Your task to perform on an android device: Open Google Chrome and open the bookmarks view Image 0: 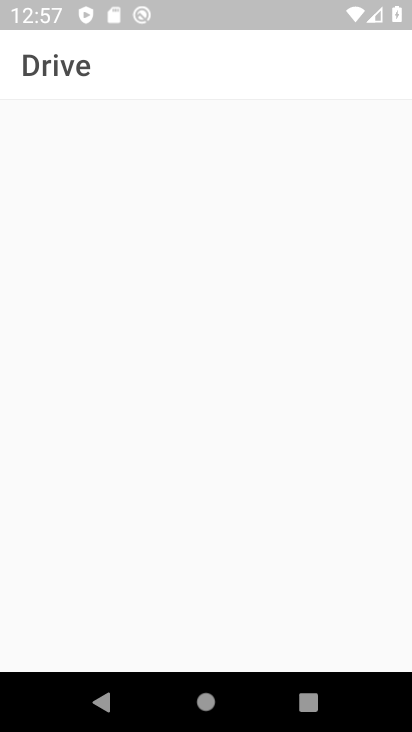
Step 0: press back button
Your task to perform on an android device: Open Google Chrome and open the bookmarks view Image 1: 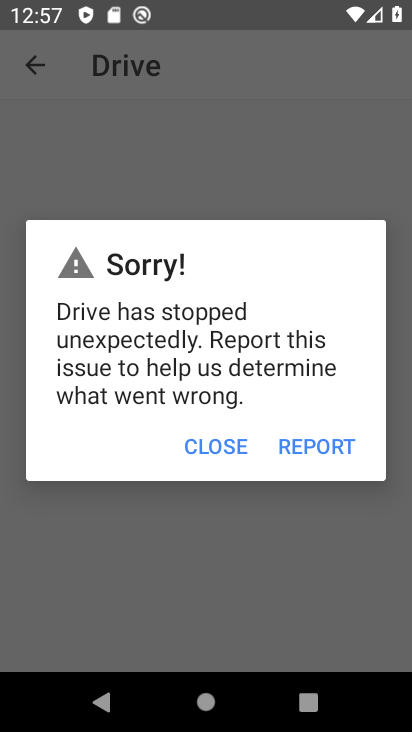
Step 1: click (217, 445)
Your task to perform on an android device: Open Google Chrome and open the bookmarks view Image 2: 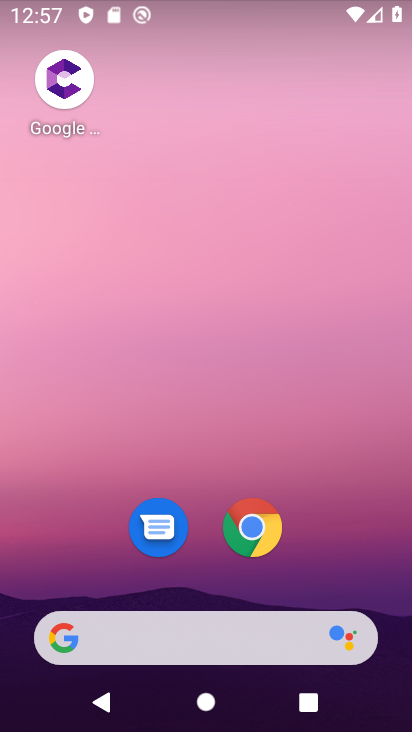
Step 2: drag from (271, 630) to (230, 229)
Your task to perform on an android device: Open Google Chrome and open the bookmarks view Image 3: 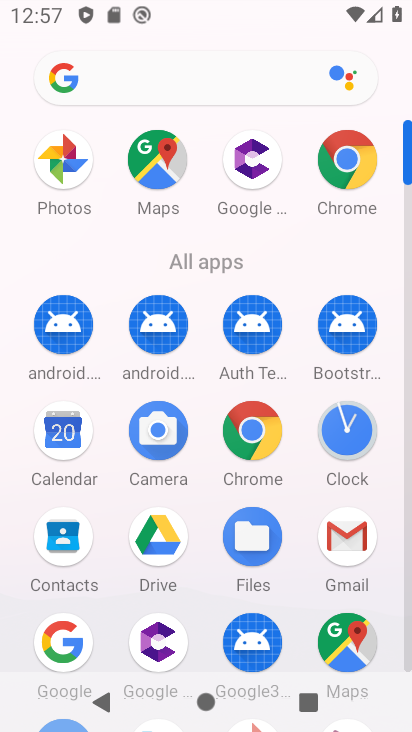
Step 3: click (342, 152)
Your task to perform on an android device: Open Google Chrome and open the bookmarks view Image 4: 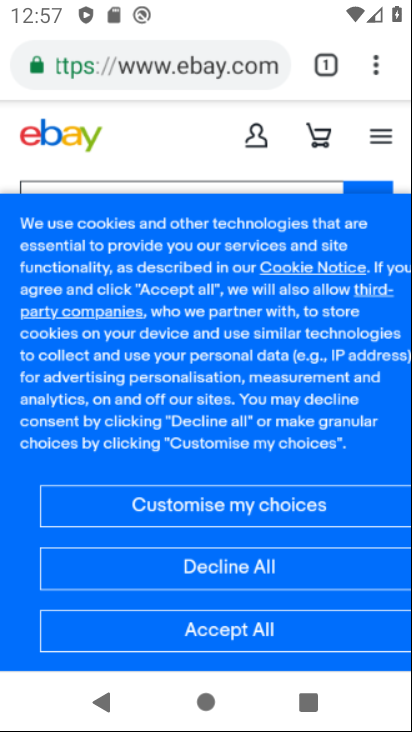
Step 4: click (340, 161)
Your task to perform on an android device: Open Google Chrome and open the bookmarks view Image 5: 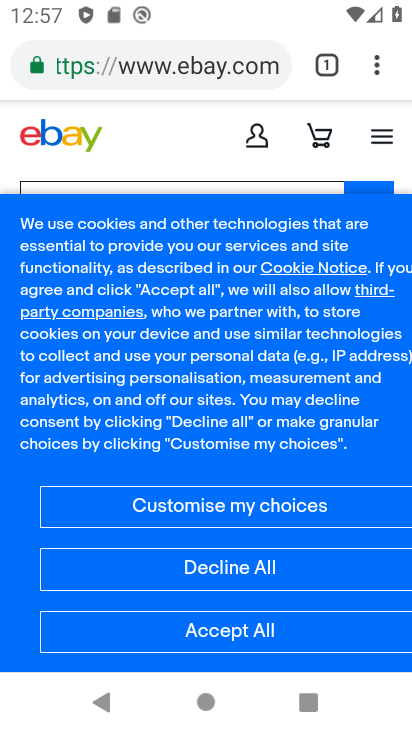
Step 5: drag from (373, 64) to (154, 237)
Your task to perform on an android device: Open Google Chrome and open the bookmarks view Image 6: 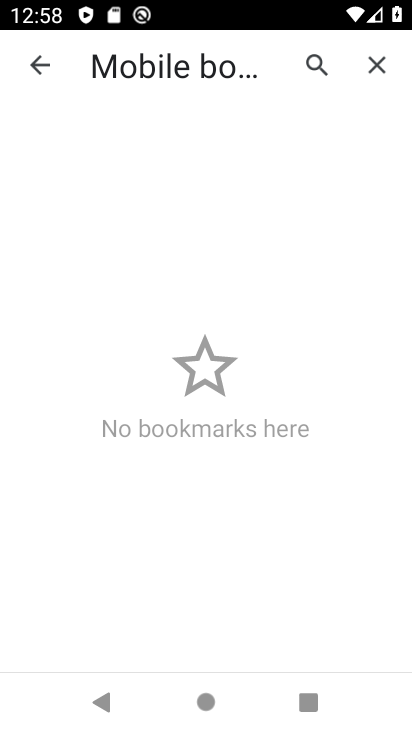
Step 6: click (155, 245)
Your task to perform on an android device: Open Google Chrome and open the bookmarks view Image 7: 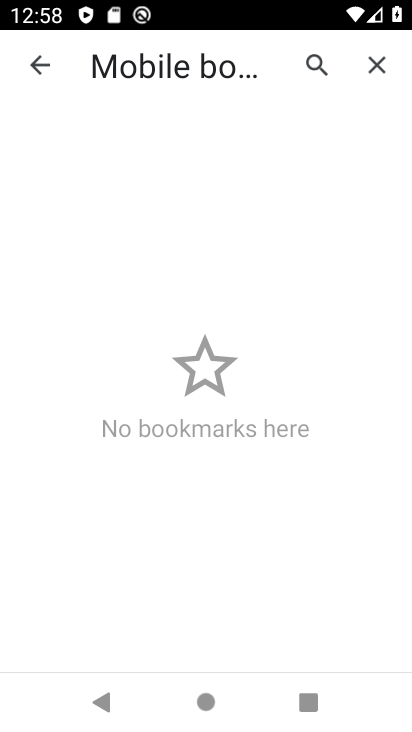
Step 7: click (158, 243)
Your task to perform on an android device: Open Google Chrome and open the bookmarks view Image 8: 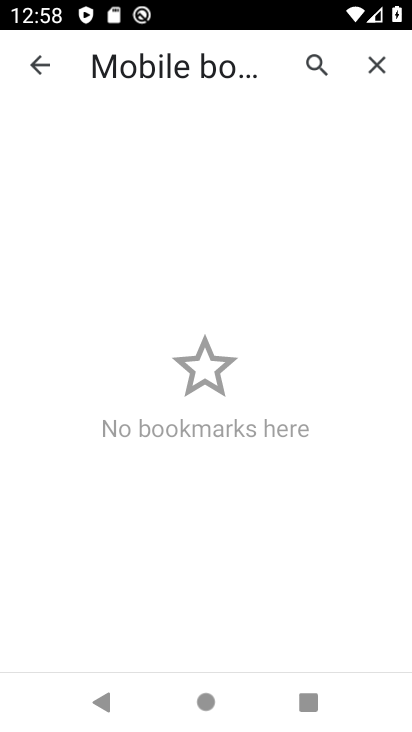
Step 8: click (159, 243)
Your task to perform on an android device: Open Google Chrome and open the bookmarks view Image 9: 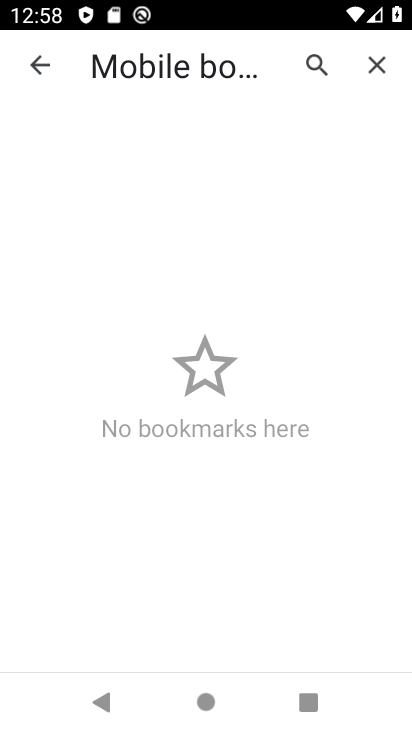
Step 9: click (159, 243)
Your task to perform on an android device: Open Google Chrome and open the bookmarks view Image 10: 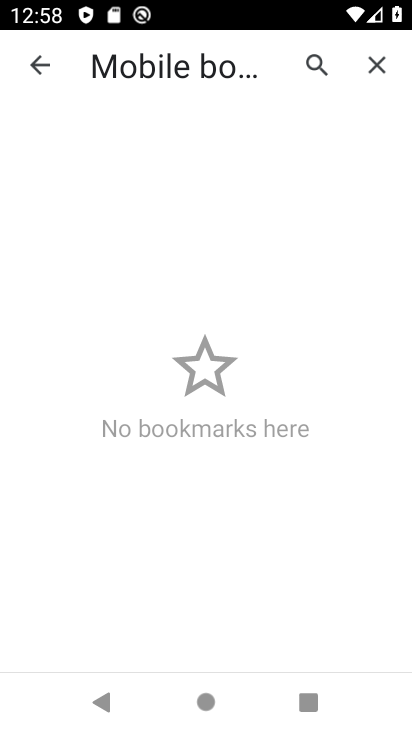
Step 10: click (169, 242)
Your task to perform on an android device: Open Google Chrome and open the bookmarks view Image 11: 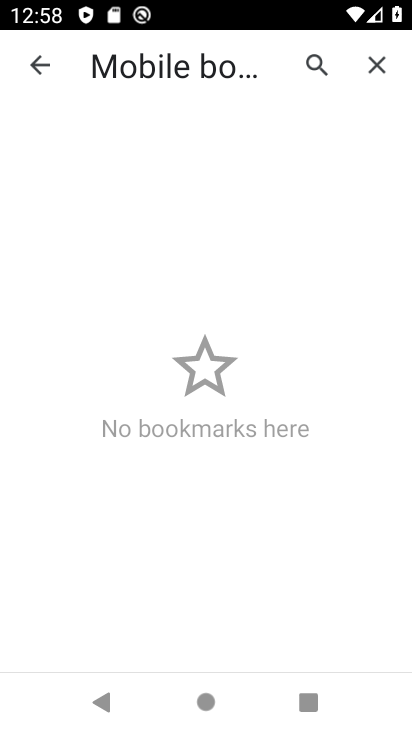
Step 11: task complete